Your task to perform on an android device: What's on my calendar today? Image 0: 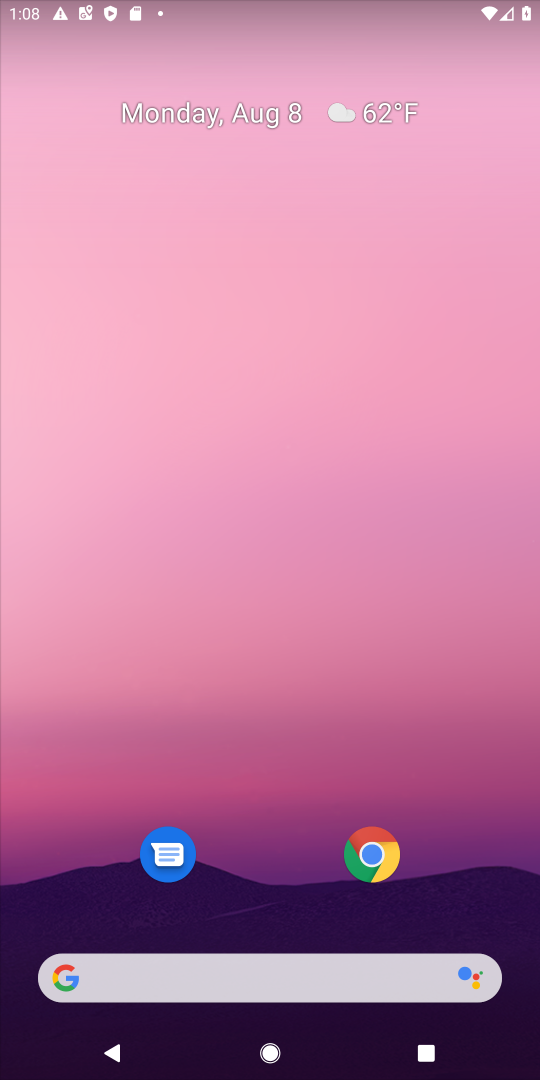
Step 0: press home button
Your task to perform on an android device: What's on my calendar today? Image 1: 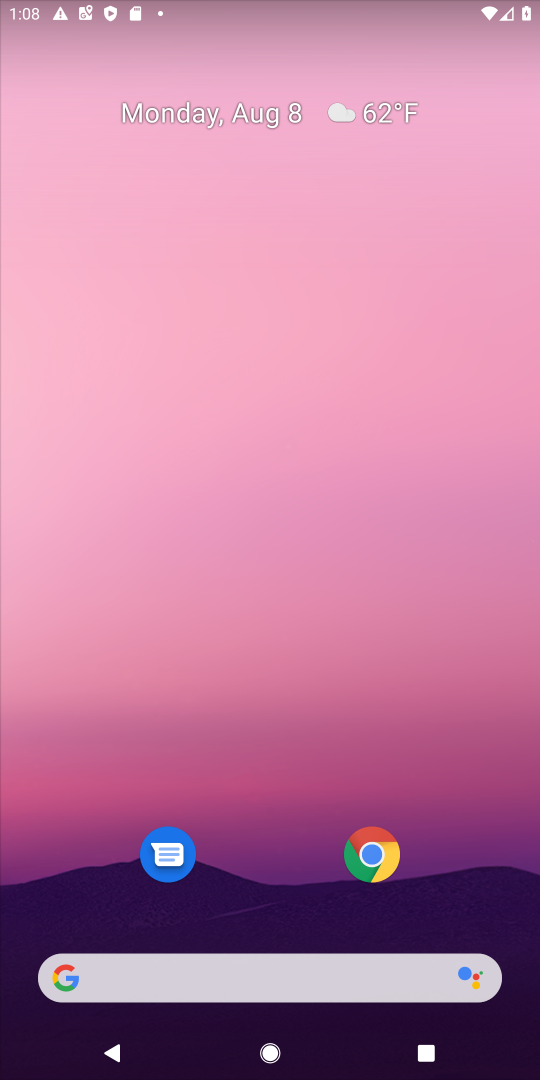
Step 1: press home button
Your task to perform on an android device: What's on my calendar today? Image 2: 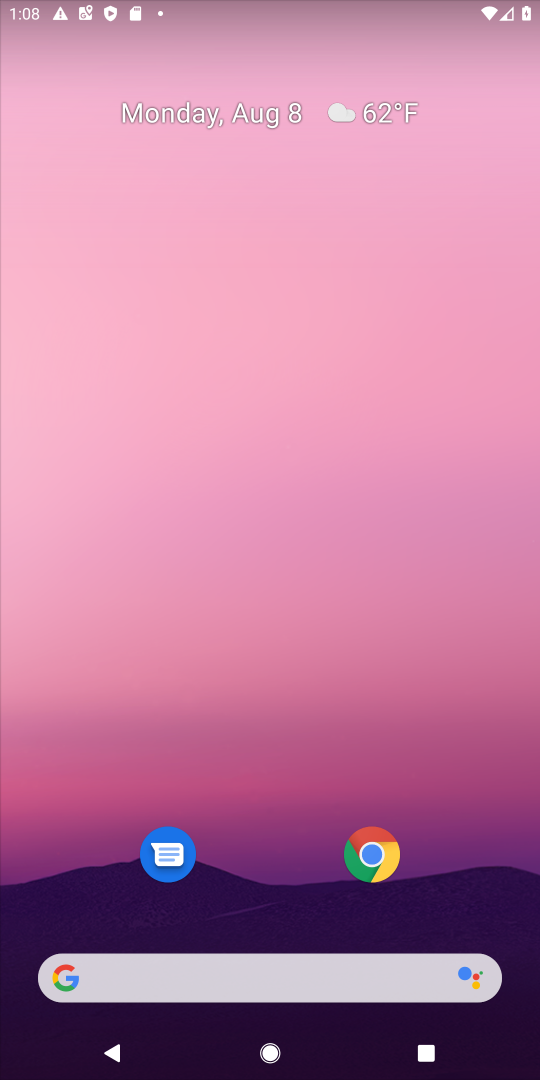
Step 2: drag from (282, 906) to (304, 217)
Your task to perform on an android device: What's on my calendar today? Image 3: 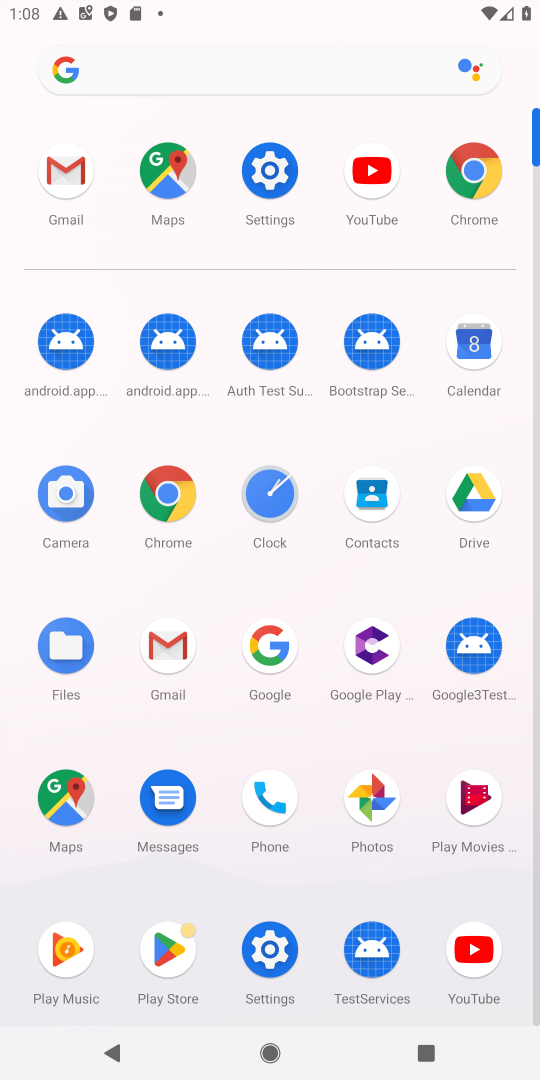
Step 3: click (472, 342)
Your task to perform on an android device: What's on my calendar today? Image 4: 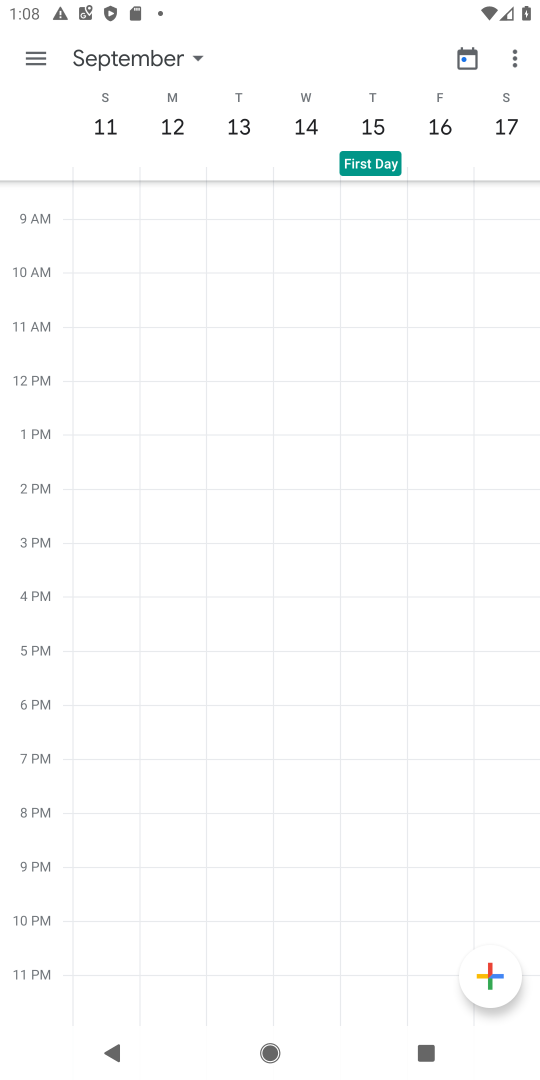
Step 4: drag from (80, 118) to (516, 140)
Your task to perform on an android device: What's on my calendar today? Image 5: 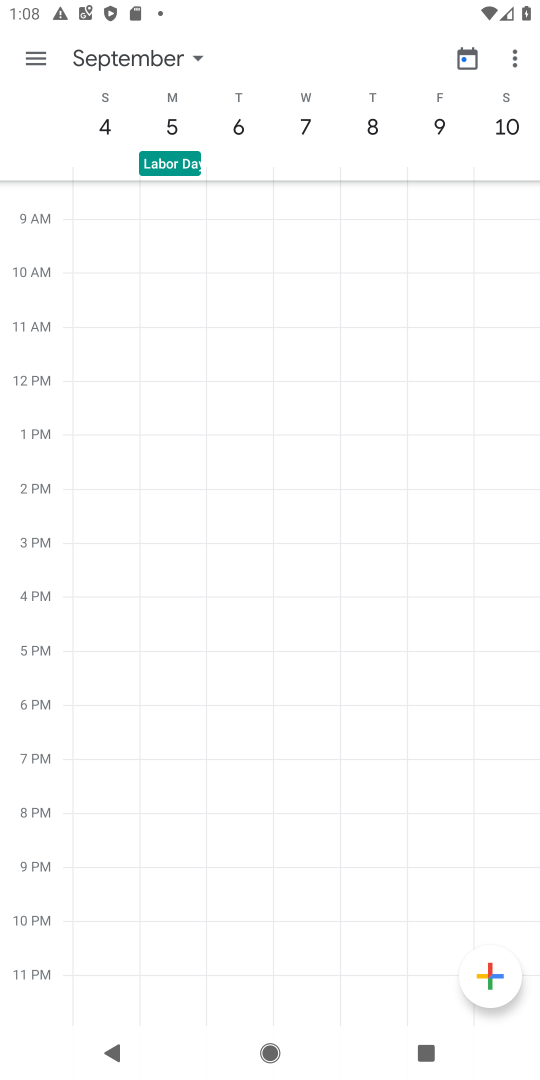
Step 5: drag from (59, 108) to (533, 153)
Your task to perform on an android device: What's on my calendar today? Image 6: 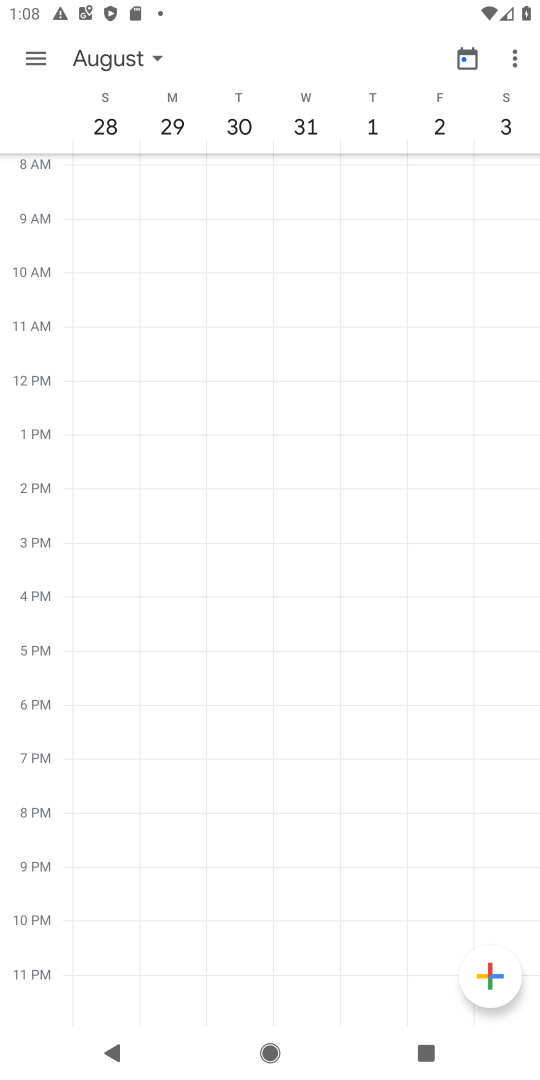
Step 6: drag from (64, 110) to (533, 137)
Your task to perform on an android device: What's on my calendar today? Image 7: 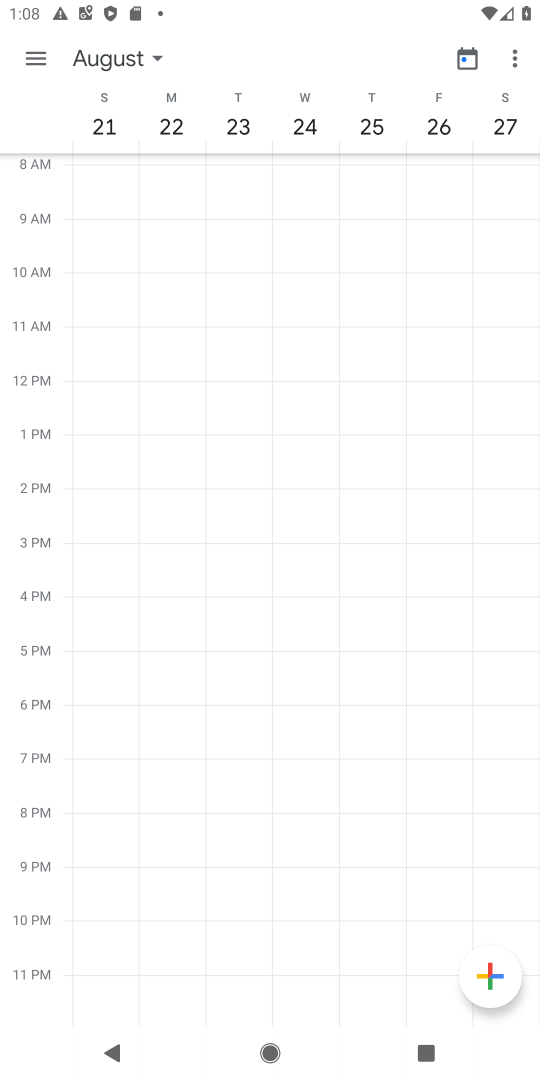
Step 7: drag from (81, 105) to (514, 144)
Your task to perform on an android device: What's on my calendar today? Image 8: 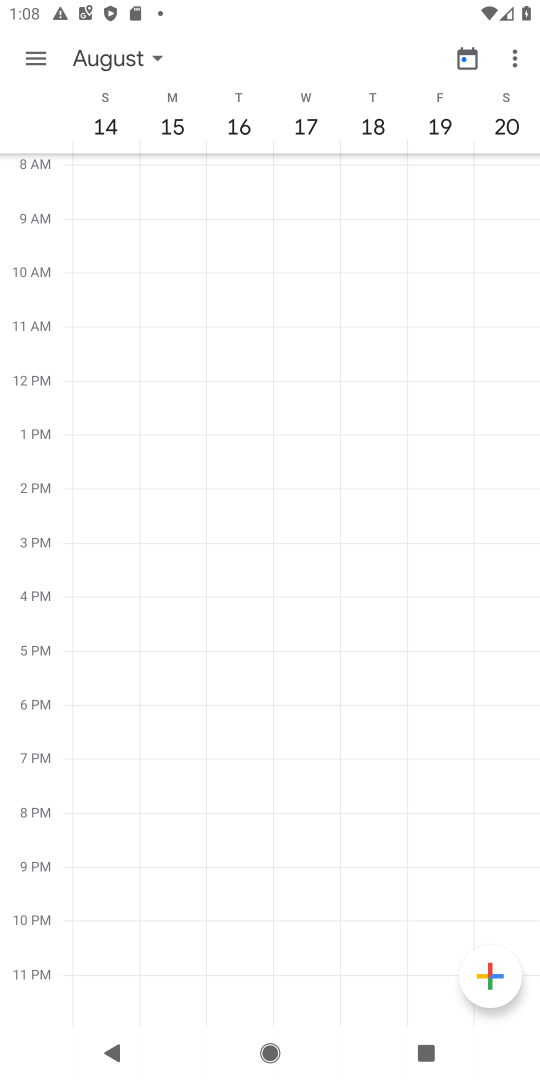
Step 8: drag from (97, 118) to (508, 141)
Your task to perform on an android device: What's on my calendar today? Image 9: 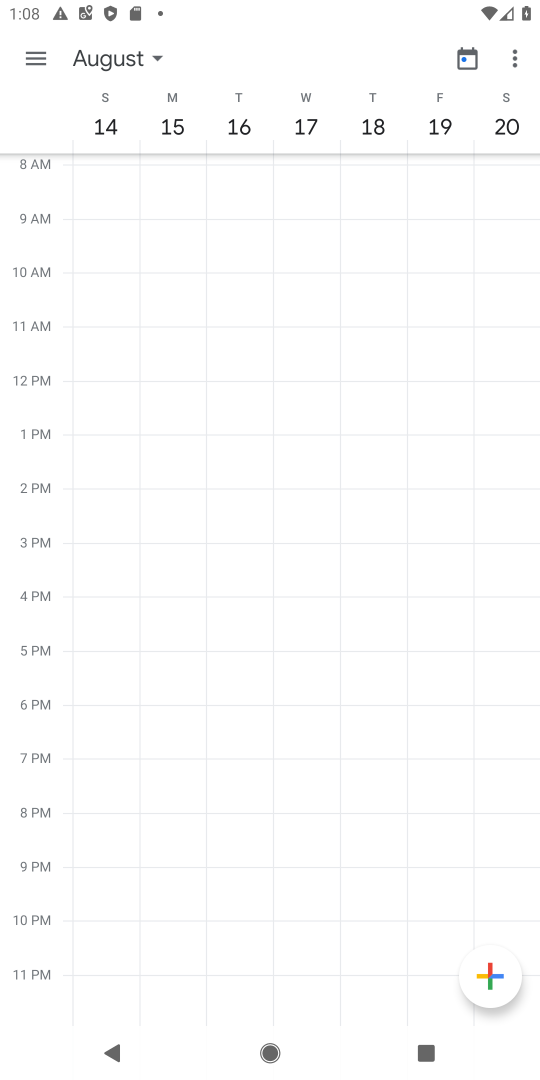
Step 9: drag from (132, 107) to (514, 129)
Your task to perform on an android device: What's on my calendar today? Image 10: 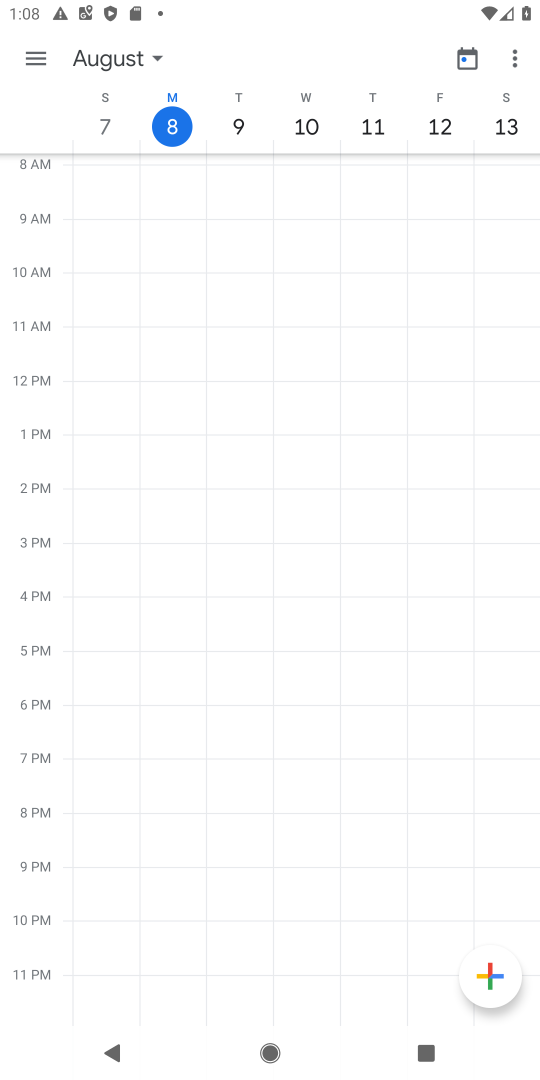
Step 10: click (180, 116)
Your task to perform on an android device: What's on my calendar today? Image 11: 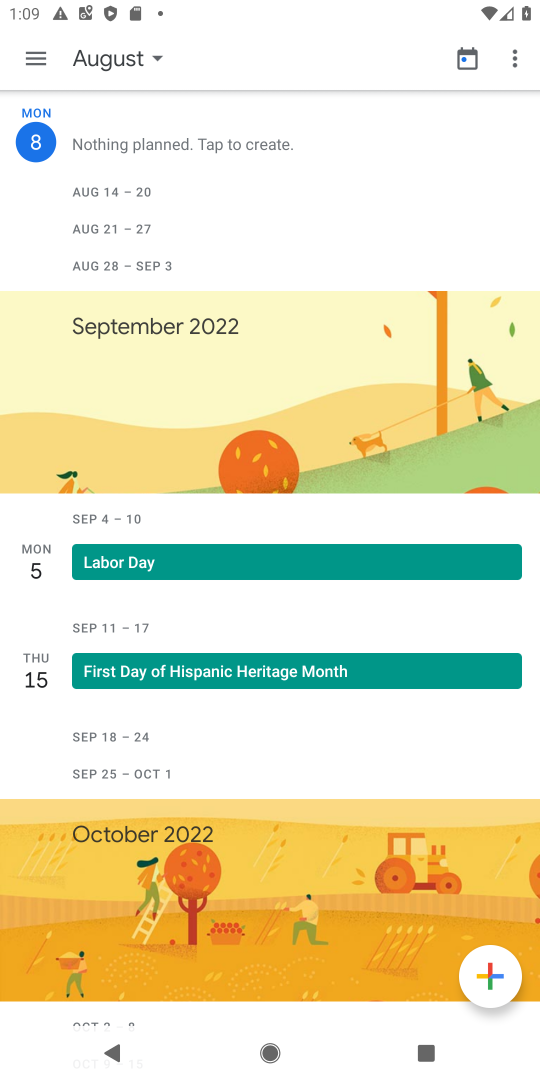
Step 11: task complete